Your task to perform on an android device: turn vacation reply on in the gmail app Image 0: 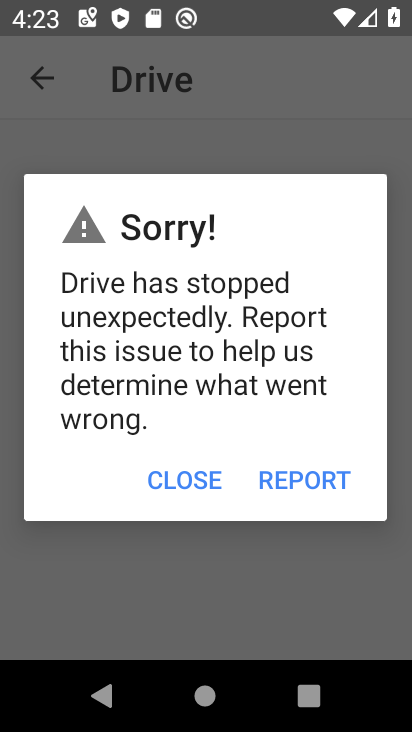
Step 0: press back button
Your task to perform on an android device: turn vacation reply on in the gmail app Image 1: 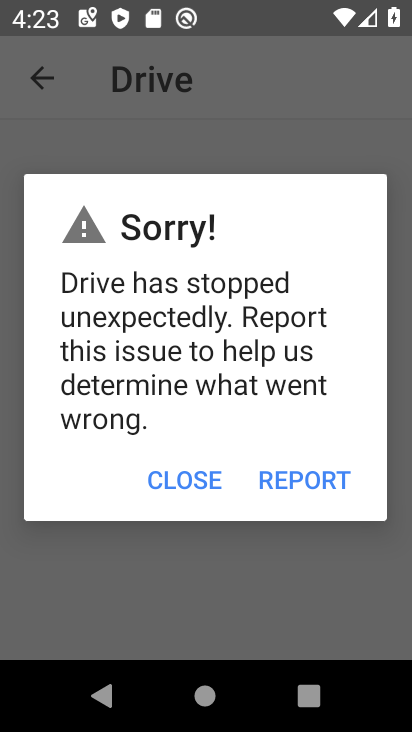
Step 1: press back button
Your task to perform on an android device: turn vacation reply on in the gmail app Image 2: 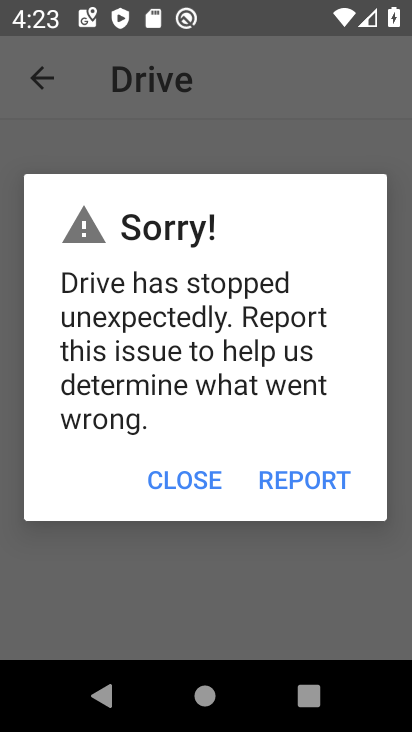
Step 2: press home button
Your task to perform on an android device: turn vacation reply on in the gmail app Image 3: 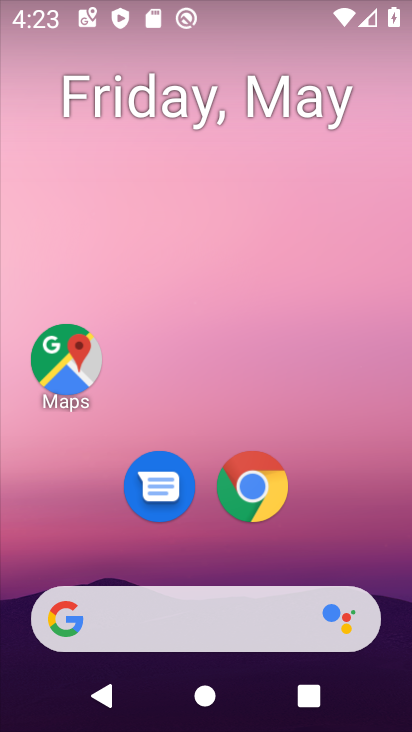
Step 3: drag from (400, 658) to (174, 12)
Your task to perform on an android device: turn vacation reply on in the gmail app Image 4: 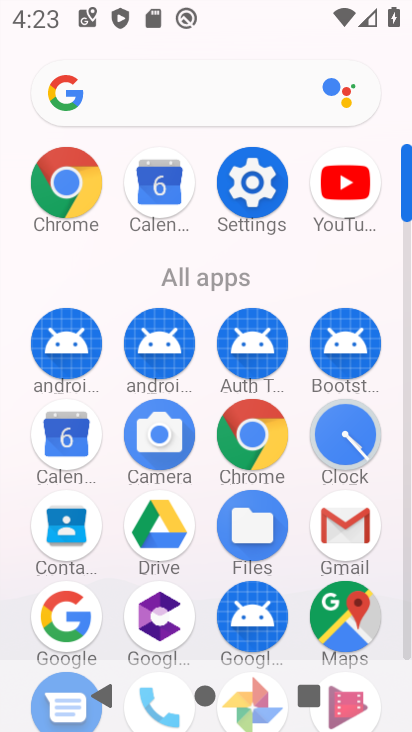
Step 4: drag from (9, 560) to (0, 192)
Your task to perform on an android device: turn vacation reply on in the gmail app Image 5: 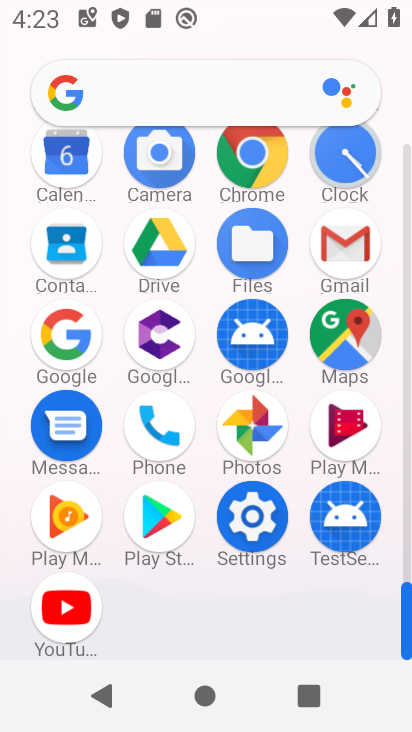
Step 5: click (346, 242)
Your task to perform on an android device: turn vacation reply on in the gmail app Image 6: 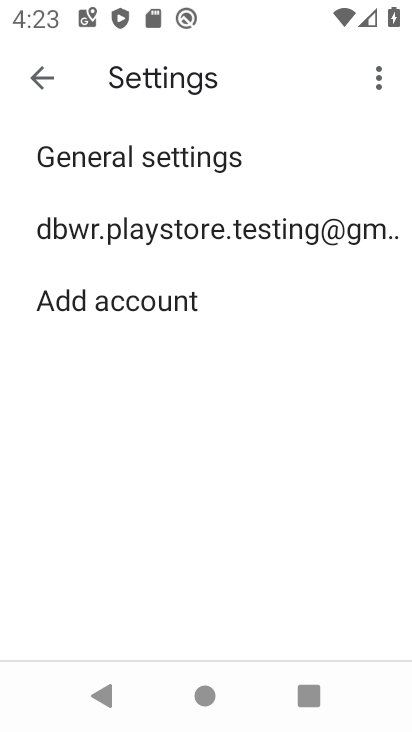
Step 6: click (187, 231)
Your task to perform on an android device: turn vacation reply on in the gmail app Image 7: 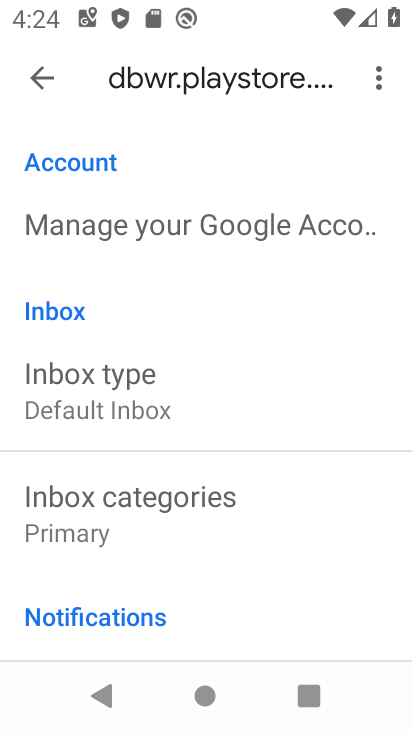
Step 7: drag from (226, 602) to (237, 118)
Your task to perform on an android device: turn vacation reply on in the gmail app Image 8: 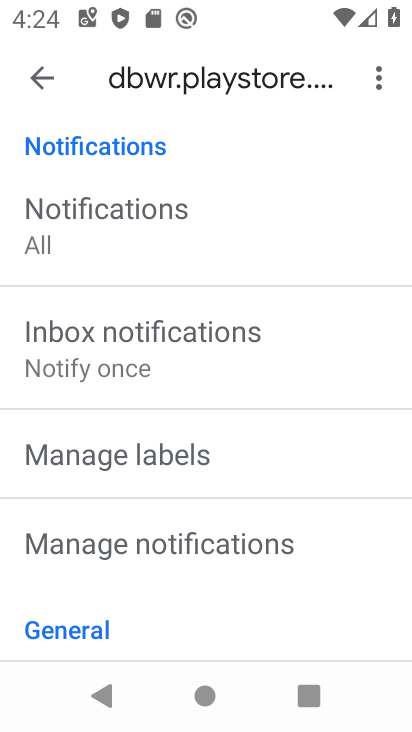
Step 8: drag from (286, 534) to (280, 163)
Your task to perform on an android device: turn vacation reply on in the gmail app Image 9: 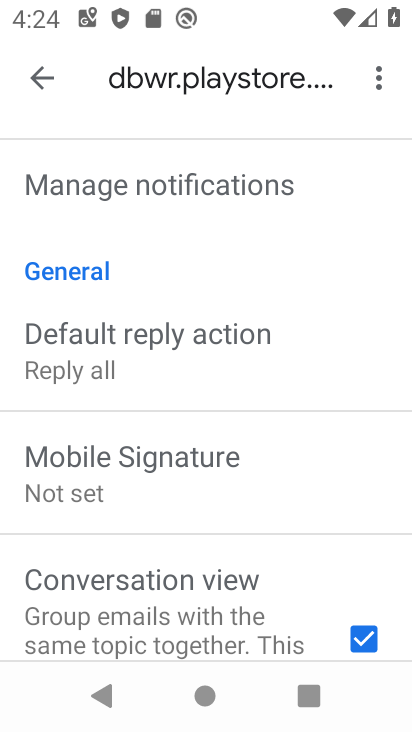
Step 9: drag from (245, 582) to (245, 183)
Your task to perform on an android device: turn vacation reply on in the gmail app Image 10: 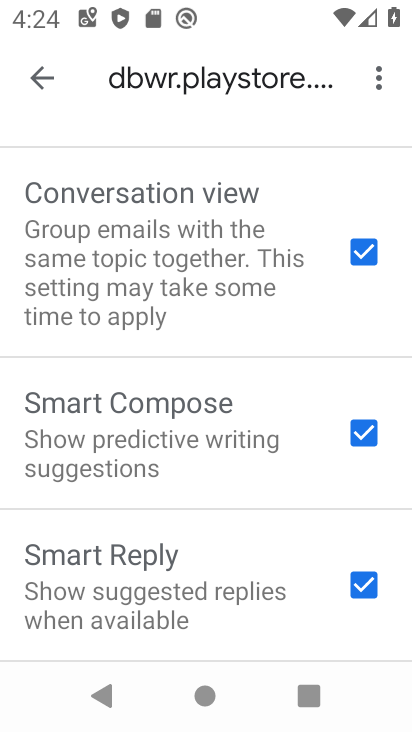
Step 10: drag from (191, 568) to (210, 184)
Your task to perform on an android device: turn vacation reply on in the gmail app Image 11: 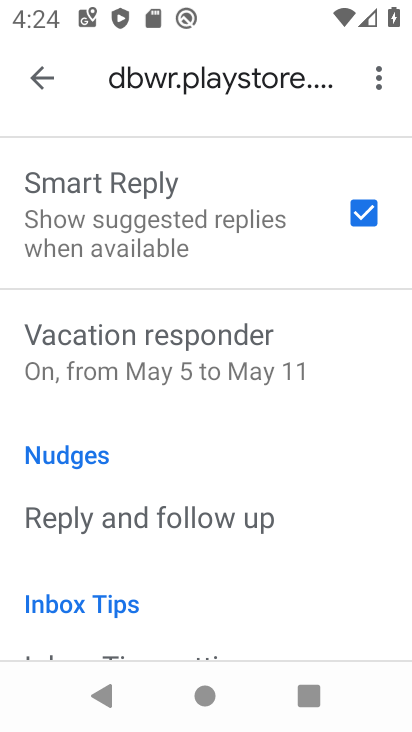
Step 11: drag from (180, 564) to (219, 233)
Your task to perform on an android device: turn vacation reply on in the gmail app Image 12: 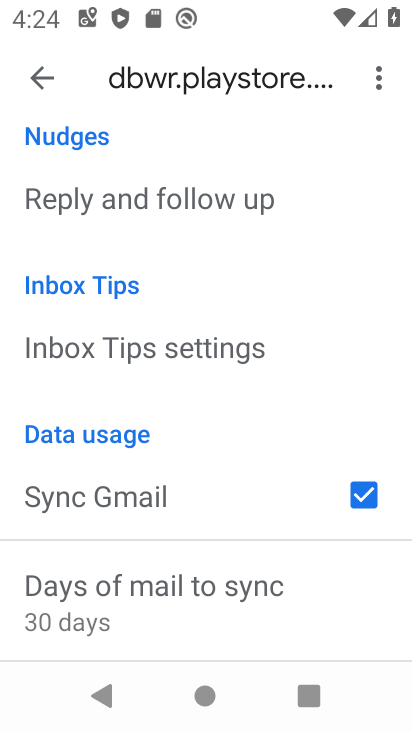
Step 12: drag from (189, 565) to (237, 159)
Your task to perform on an android device: turn vacation reply on in the gmail app Image 13: 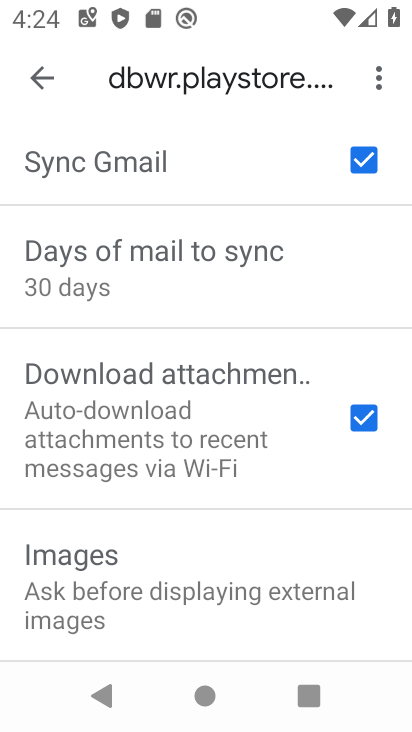
Step 13: drag from (185, 578) to (233, 202)
Your task to perform on an android device: turn vacation reply on in the gmail app Image 14: 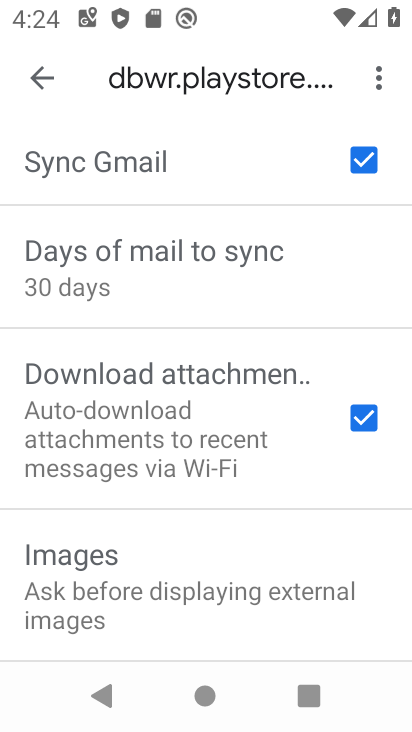
Step 14: drag from (232, 215) to (225, 635)
Your task to perform on an android device: turn vacation reply on in the gmail app Image 15: 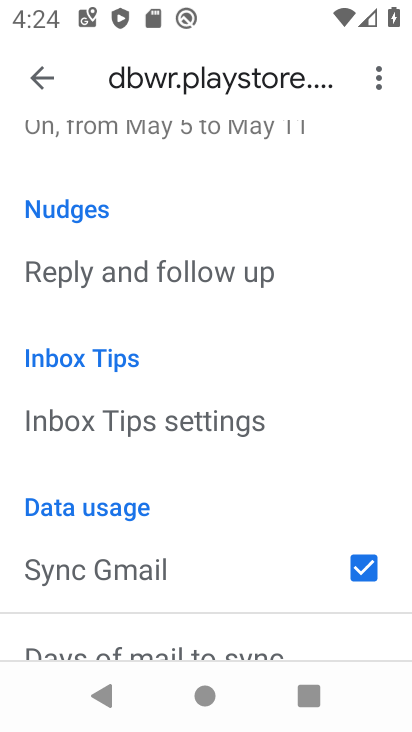
Step 15: drag from (234, 251) to (220, 624)
Your task to perform on an android device: turn vacation reply on in the gmail app Image 16: 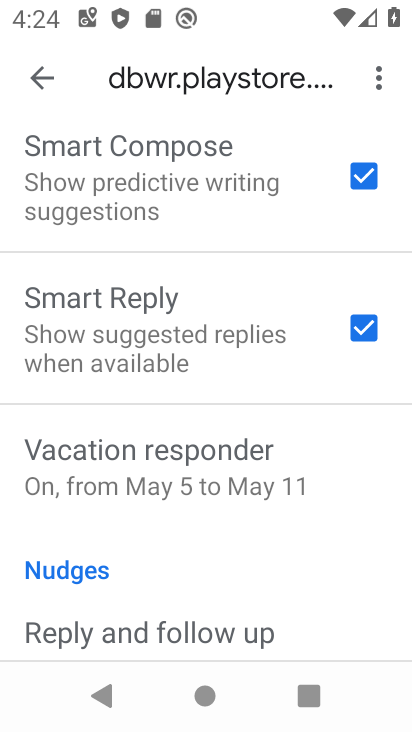
Step 16: drag from (219, 233) to (242, 607)
Your task to perform on an android device: turn vacation reply on in the gmail app Image 17: 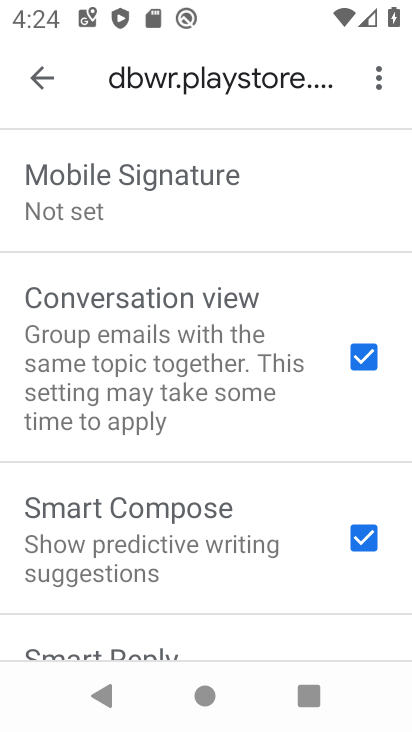
Step 17: drag from (188, 227) to (188, 533)
Your task to perform on an android device: turn vacation reply on in the gmail app Image 18: 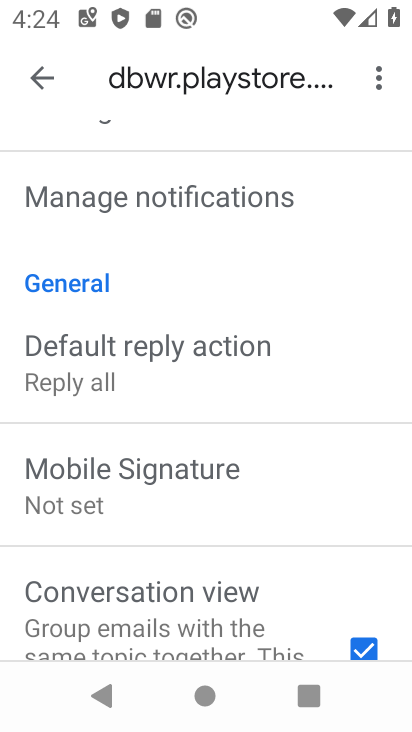
Step 18: drag from (213, 202) to (210, 557)
Your task to perform on an android device: turn vacation reply on in the gmail app Image 19: 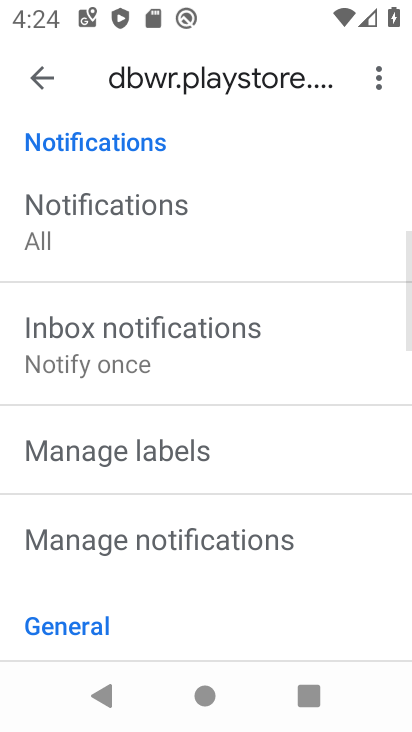
Step 19: drag from (200, 231) to (220, 591)
Your task to perform on an android device: turn vacation reply on in the gmail app Image 20: 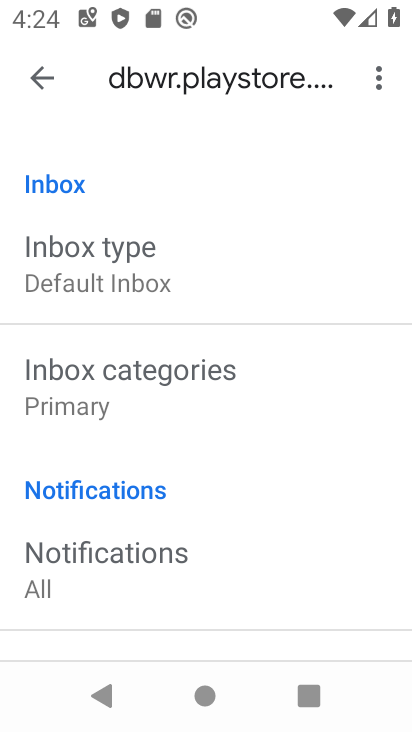
Step 20: drag from (242, 218) to (255, 545)
Your task to perform on an android device: turn vacation reply on in the gmail app Image 21: 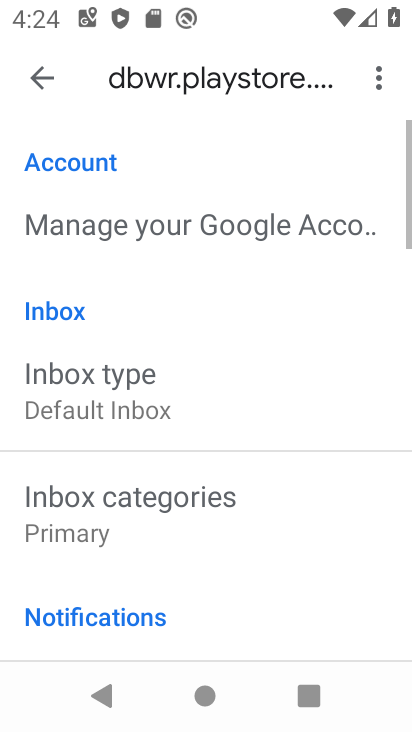
Step 21: drag from (255, 265) to (255, 555)
Your task to perform on an android device: turn vacation reply on in the gmail app Image 22: 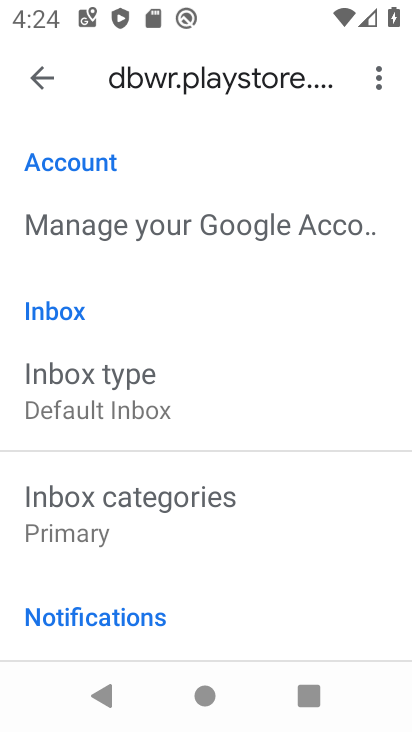
Step 22: drag from (220, 490) to (224, 157)
Your task to perform on an android device: turn vacation reply on in the gmail app Image 23: 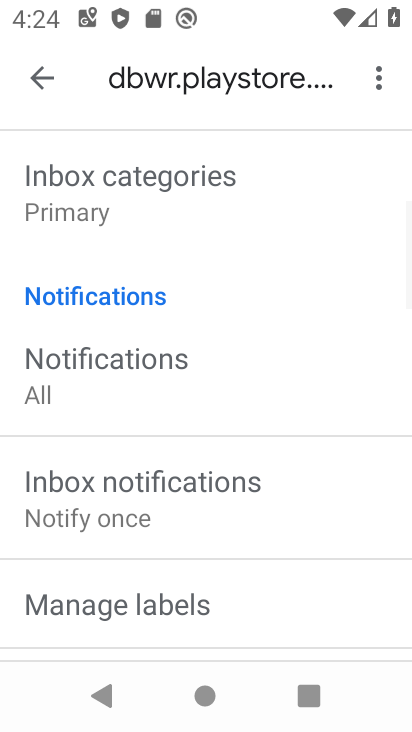
Step 23: drag from (211, 476) to (227, 195)
Your task to perform on an android device: turn vacation reply on in the gmail app Image 24: 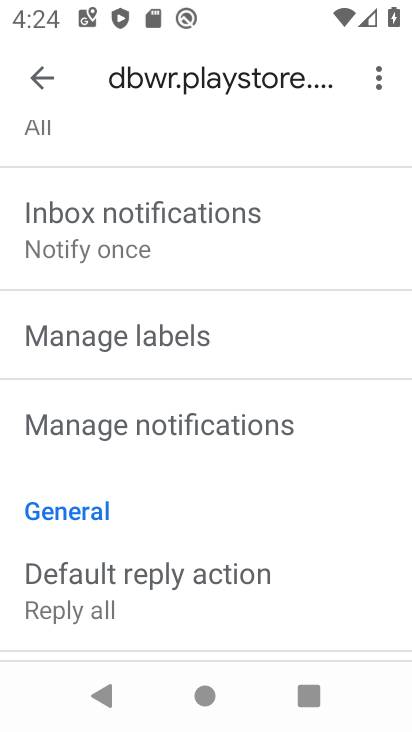
Step 24: drag from (228, 516) to (226, 180)
Your task to perform on an android device: turn vacation reply on in the gmail app Image 25: 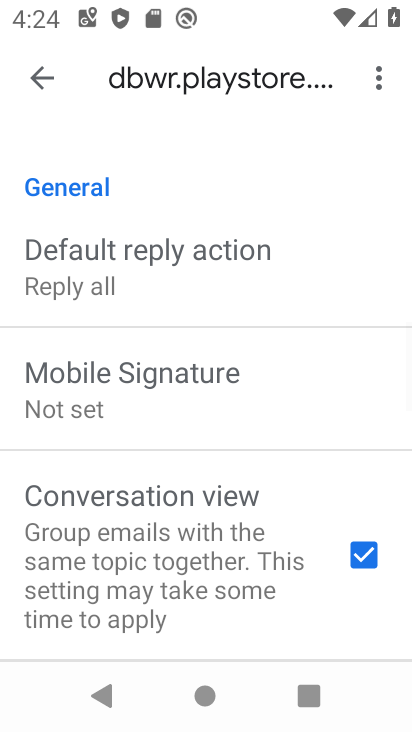
Step 25: drag from (214, 506) to (224, 289)
Your task to perform on an android device: turn vacation reply on in the gmail app Image 26: 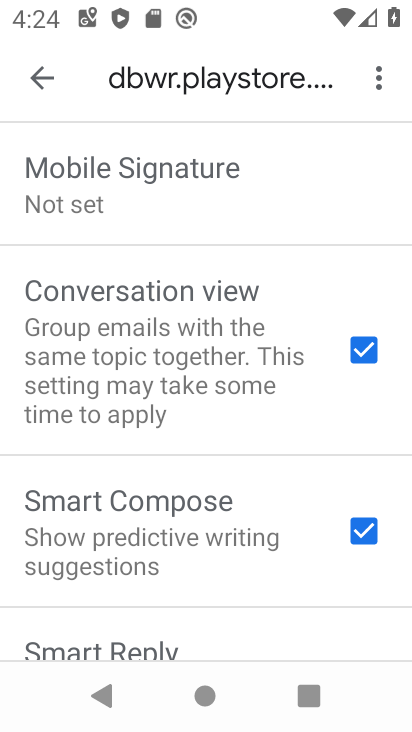
Step 26: drag from (191, 573) to (191, 113)
Your task to perform on an android device: turn vacation reply on in the gmail app Image 27: 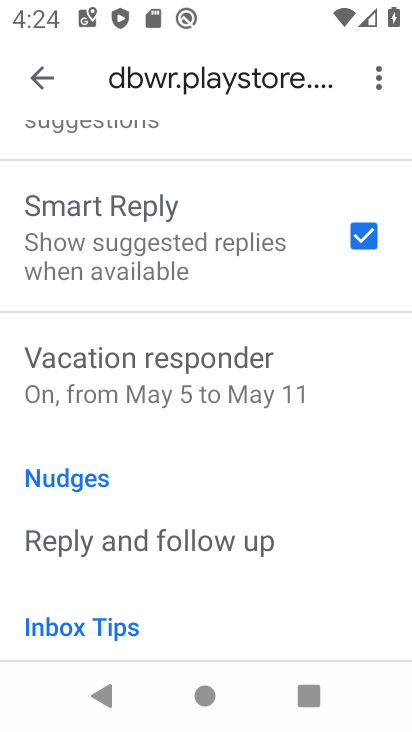
Step 27: drag from (192, 469) to (196, 152)
Your task to perform on an android device: turn vacation reply on in the gmail app Image 28: 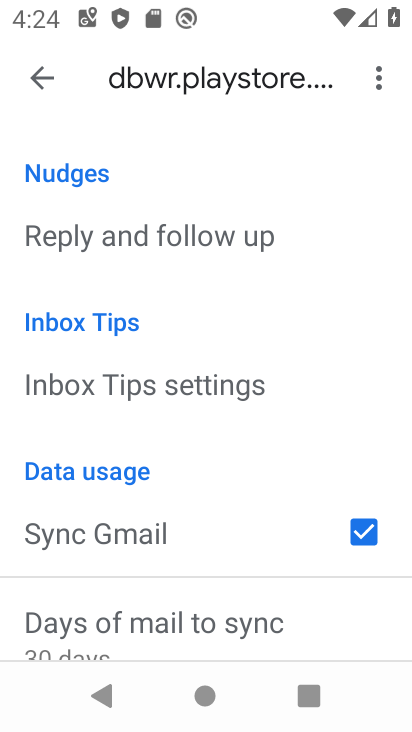
Step 28: drag from (190, 208) to (211, 463)
Your task to perform on an android device: turn vacation reply on in the gmail app Image 29: 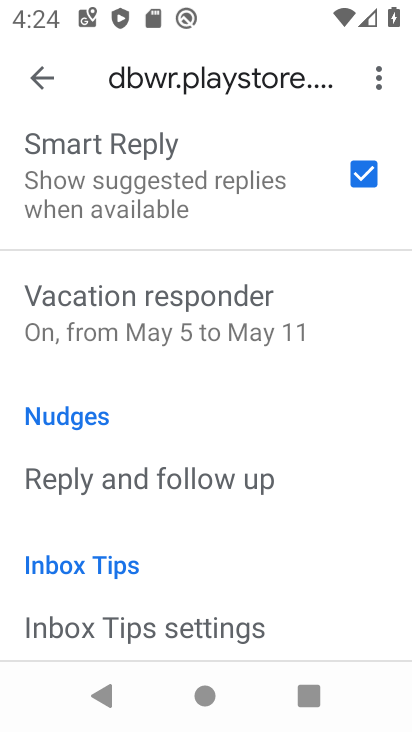
Step 29: click (187, 305)
Your task to perform on an android device: turn vacation reply on in the gmail app Image 30: 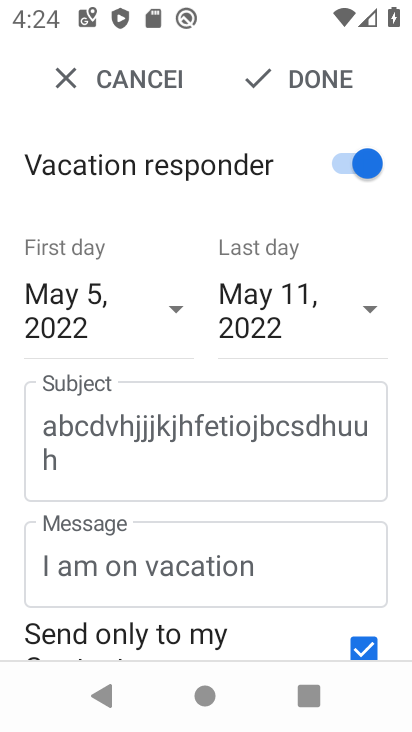
Step 30: click (303, 69)
Your task to perform on an android device: turn vacation reply on in the gmail app Image 31: 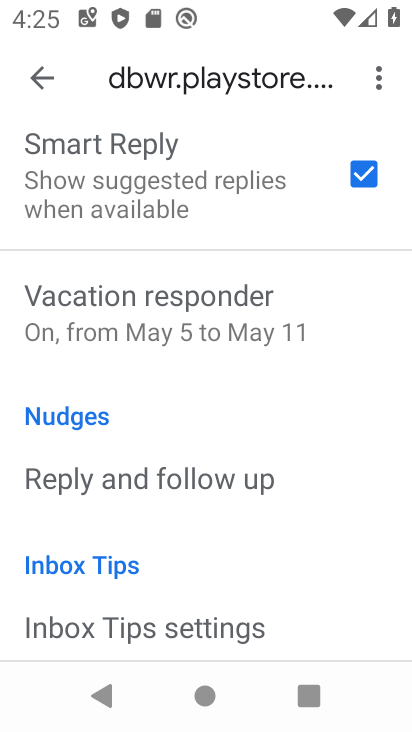
Step 31: task complete